Your task to perform on an android device: all mails in gmail Image 0: 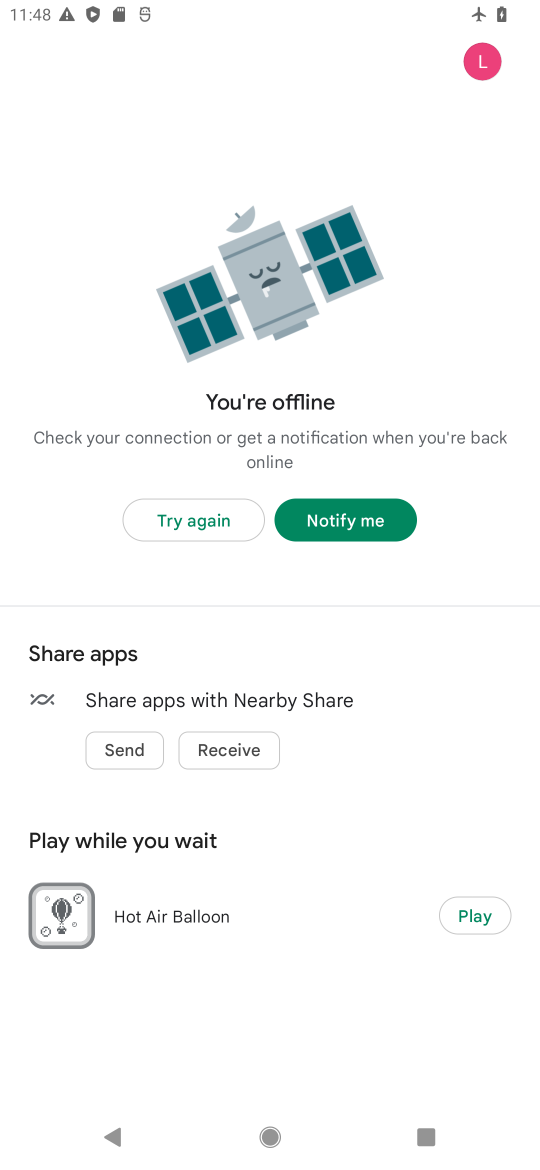
Step 0: press home button
Your task to perform on an android device: all mails in gmail Image 1: 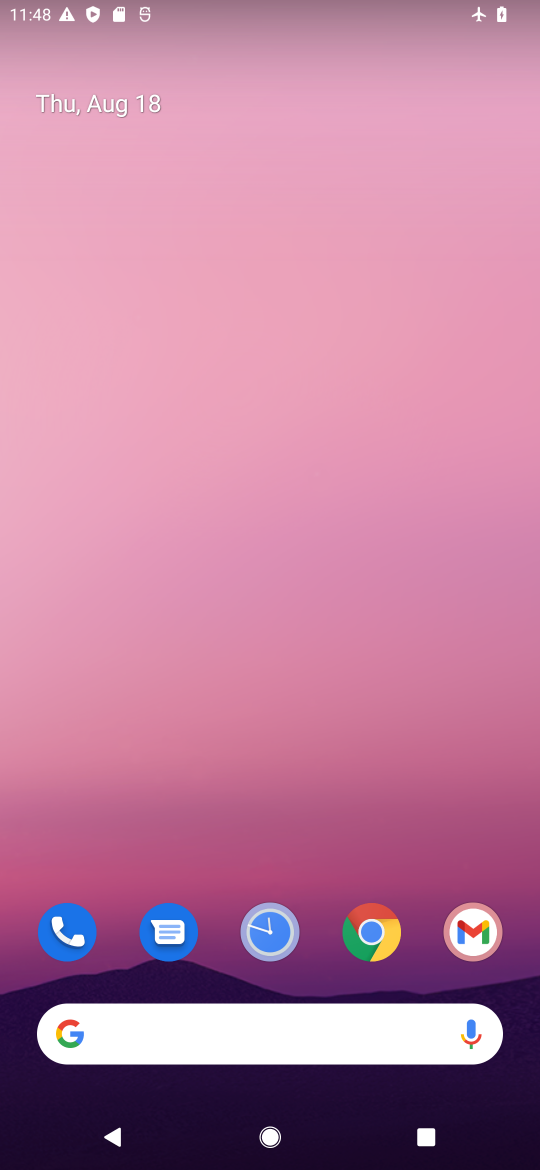
Step 1: click (457, 935)
Your task to perform on an android device: all mails in gmail Image 2: 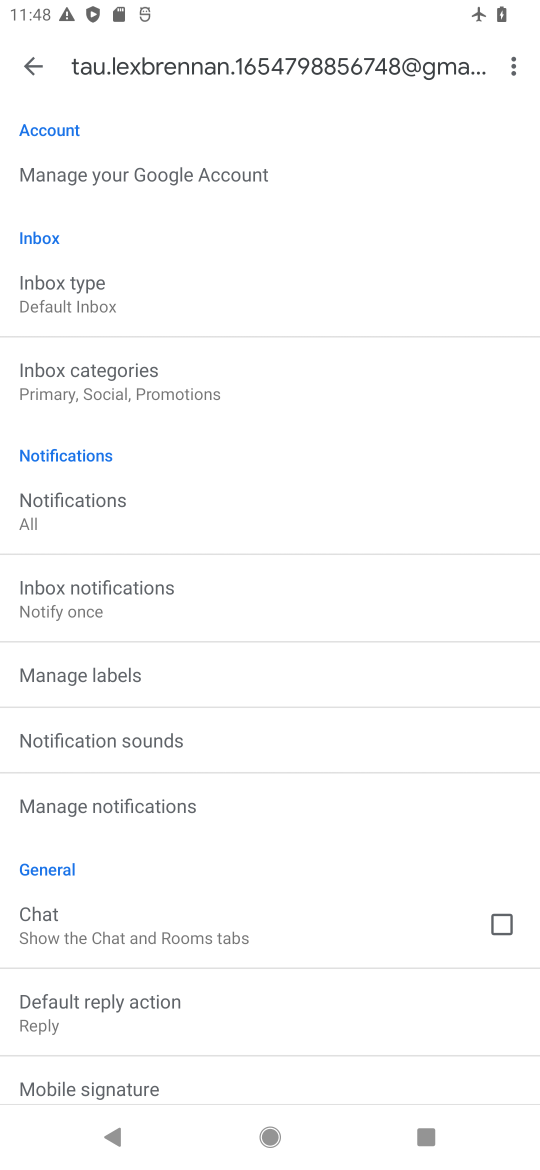
Step 2: click (31, 63)
Your task to perform on an android device: all mails in gmail Image 3: 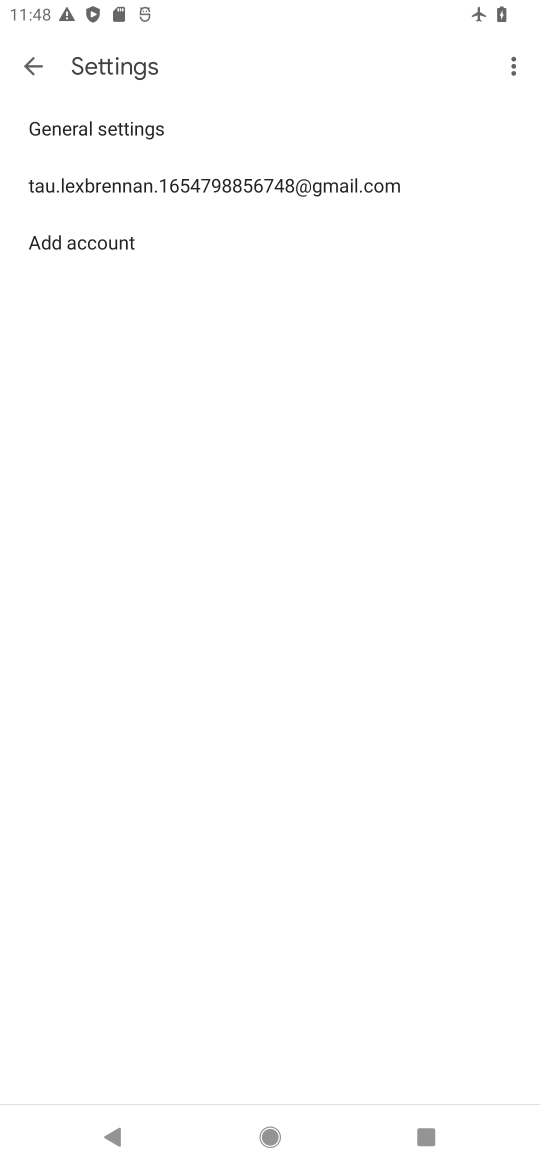
Step 3: click (37, 74)
Your task to perform on an android device: all mails in gmail Image 4: 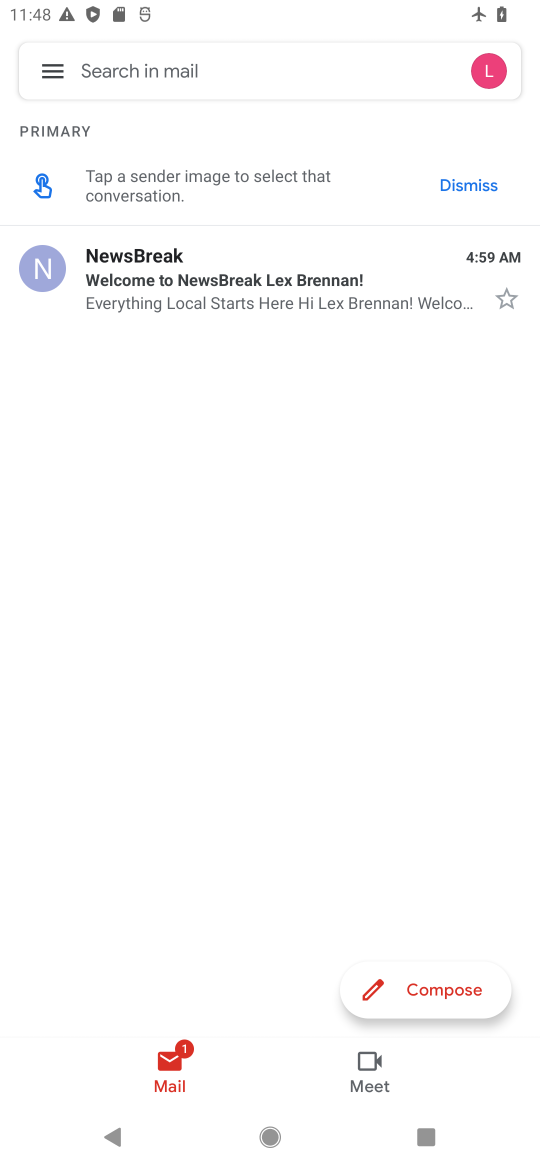
Step 4: click (43, 65)
Your task to perform on an android device: all mails in gmail Image 5: 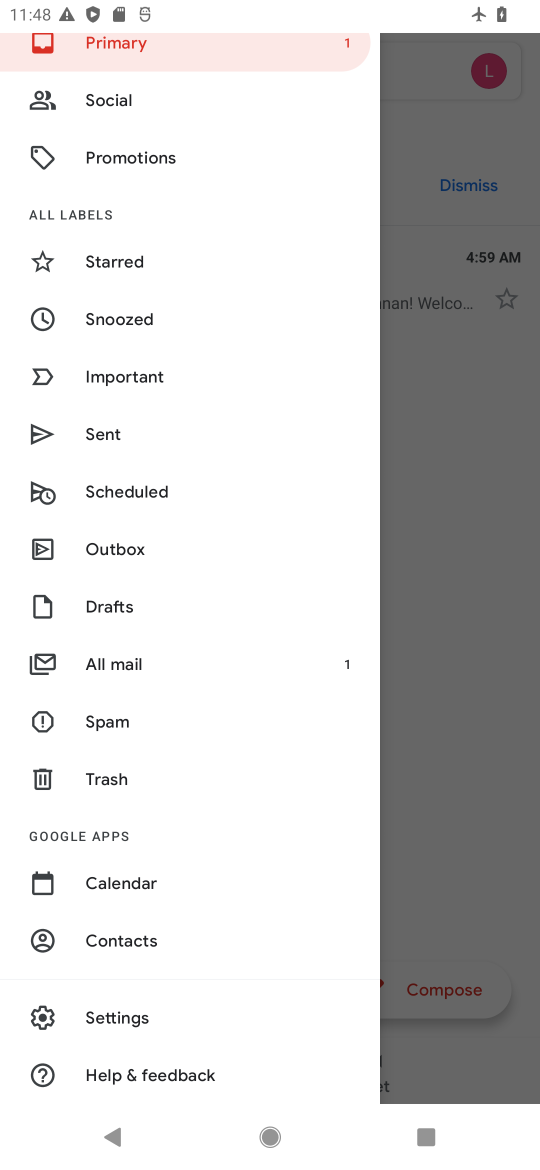
Step 5: click (135, 658)
Your task to perform on an android device: all mails in gmail Image 6: 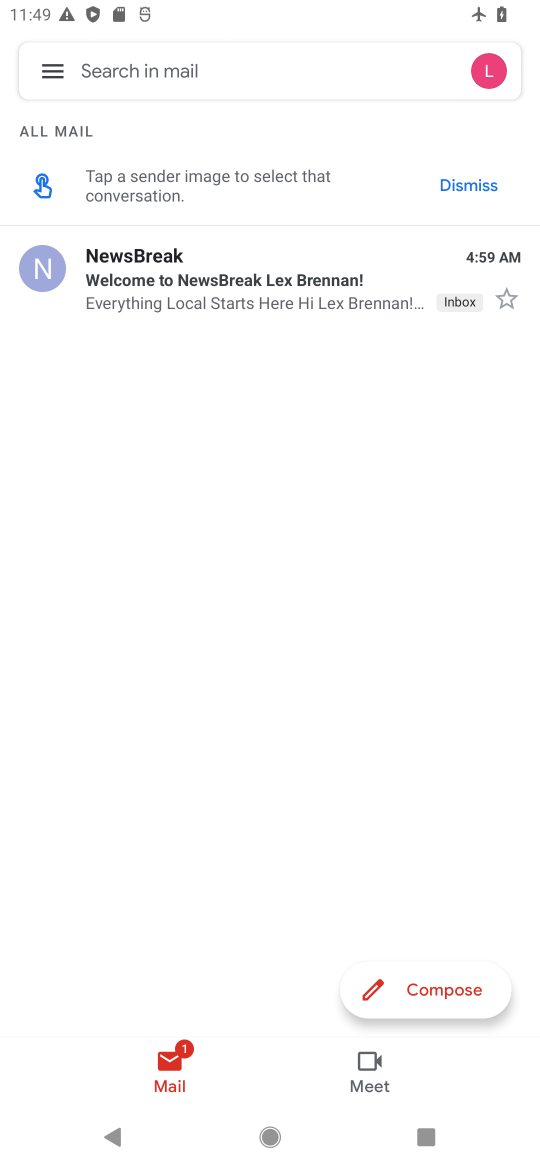
Step 6: task complete